Your task to perform on an android device: Open Amazon Image 0: 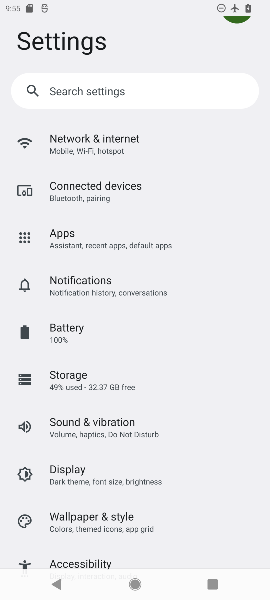
Step 0: press home button
Your task to perform on an android device: Open Amazon Image 1: 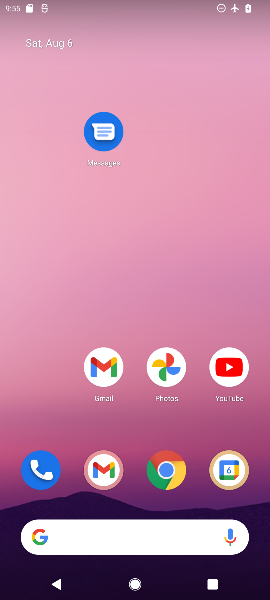
Step 1: click (175, 470)
Your task to perform on an android device: Open Amazon Image 2: 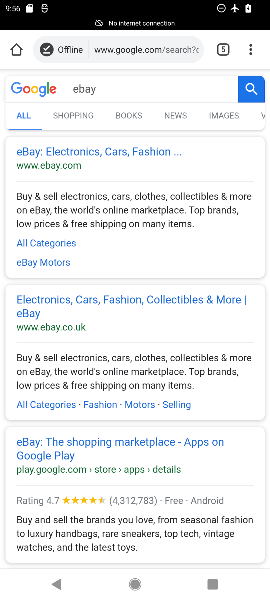
Step 2: task complete